Your task to perform on an android device: toggle wifi Image 0: 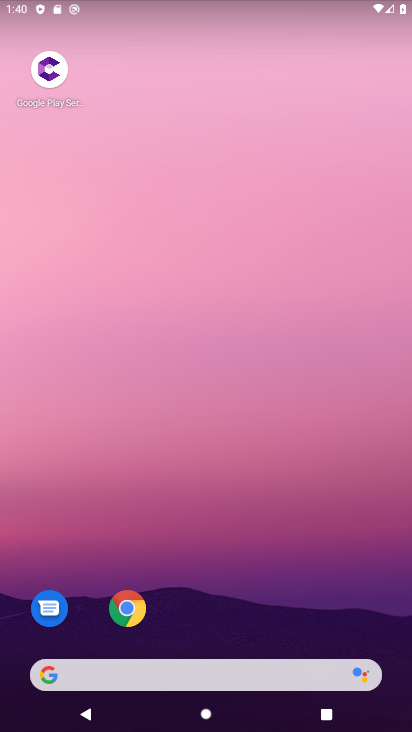
Step 0: drag from (278, 571) to (182, 58)
Your task to perform on an android device: toggle wifi Image 1: 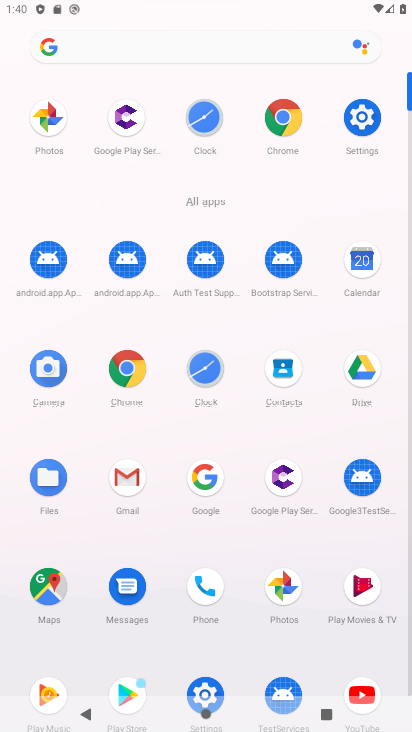
Step 1: click (362, 118)
Your task to perform on an android device: toggle wifi Image 2: 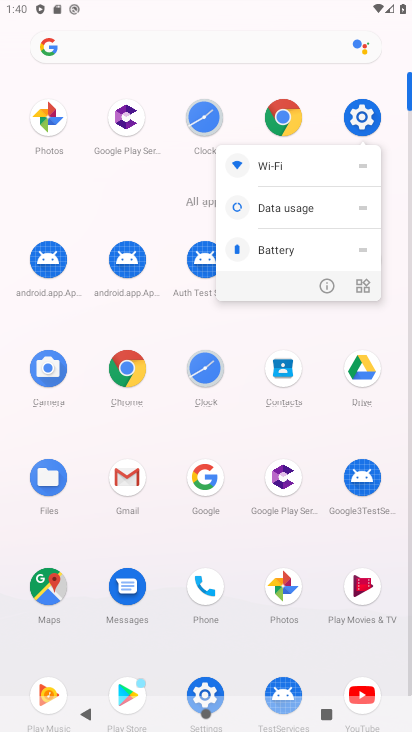
Step 2: click (359, 118)
Your task to perform on an android device: toggle wifi Image 3: 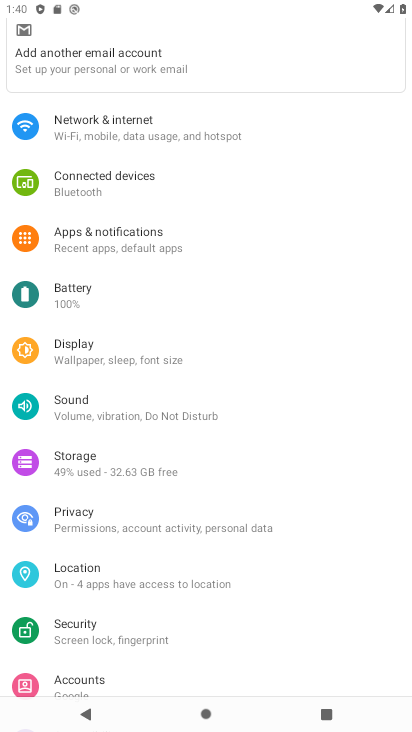
Step 3: click (130, 126)
Your task to perform on an android device: toggle wifi Image 4: 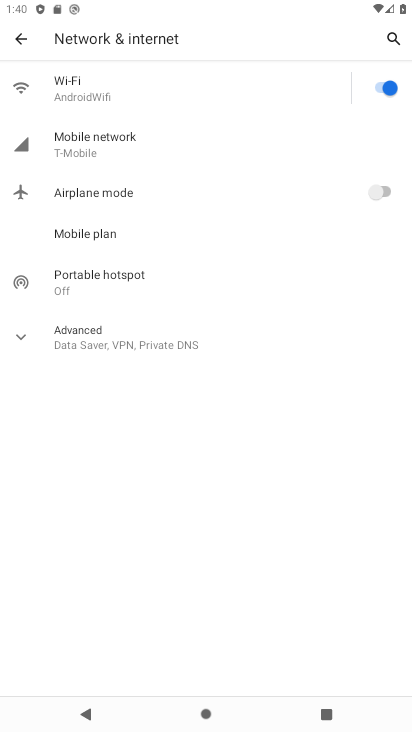
Step 4: click (387, 88)
Your task to perform on an android device: toggle wifi Image 5: 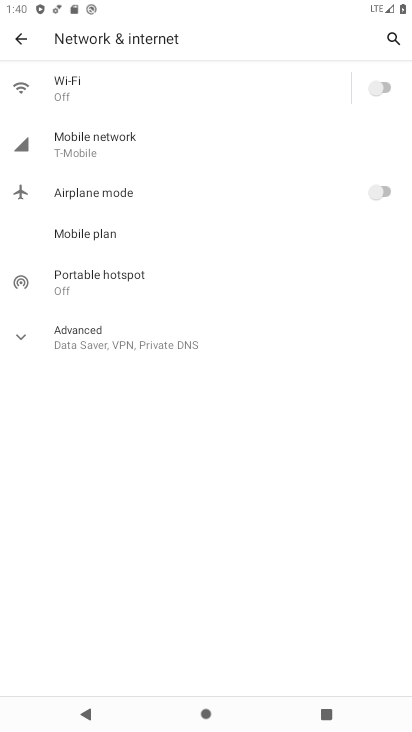
Step 5: task complete